Your task to perform on an android device: allow notifications from all sites in the chrome app Image 0: 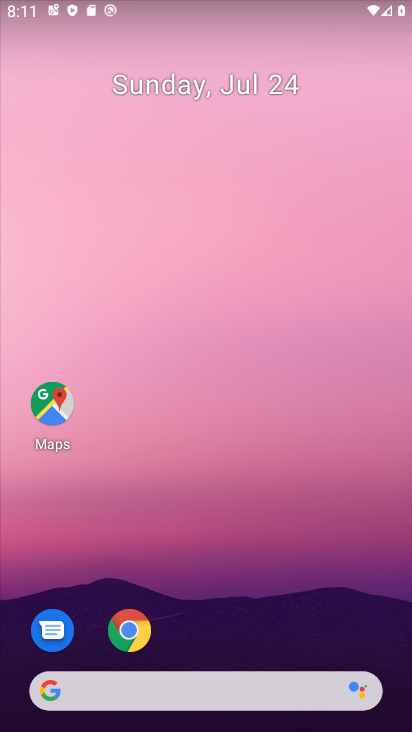
Step 0: click (127, 643)
Your task to perform on an android device: allow notifications from all sites in the chrome app Image 1: 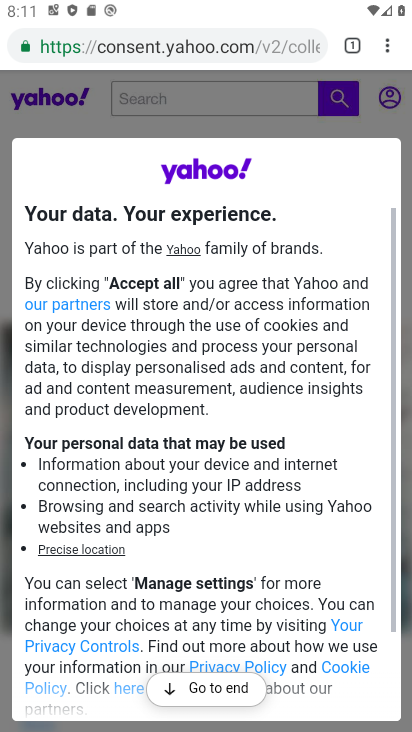
Step 1: click (389, 47)
Your task to perform on an android device: allow notifications from all sites in the chrome app Image 2: 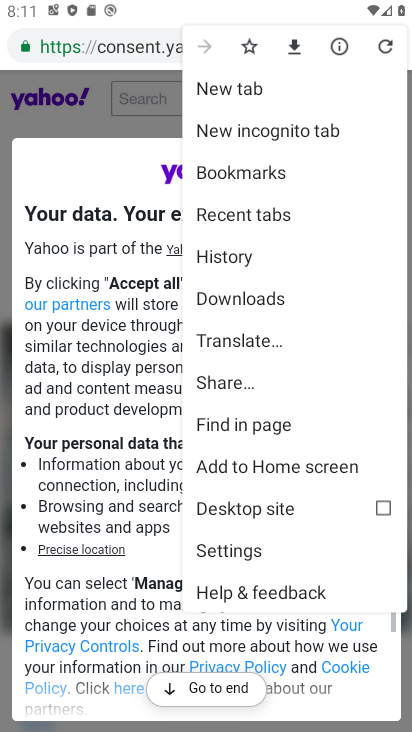
Step 2: click (237, 551)
Your task to perform on an android device: allow notifications from all sites in the chrome app Image 3: 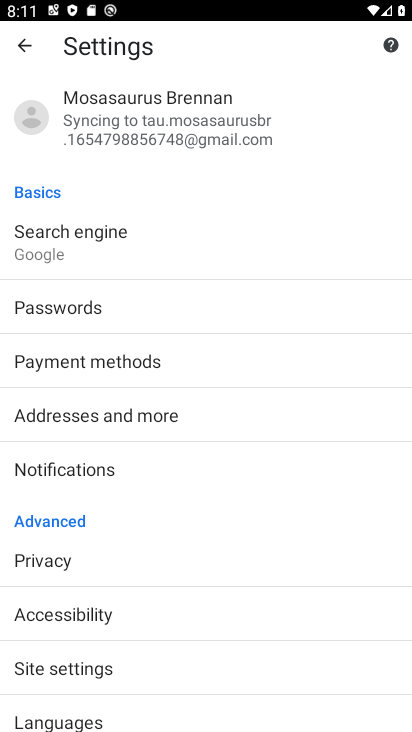
Step 3: click (105, 477)
Your task to perform on an android device: allow notifications from all sites in the chrome app Image 4: 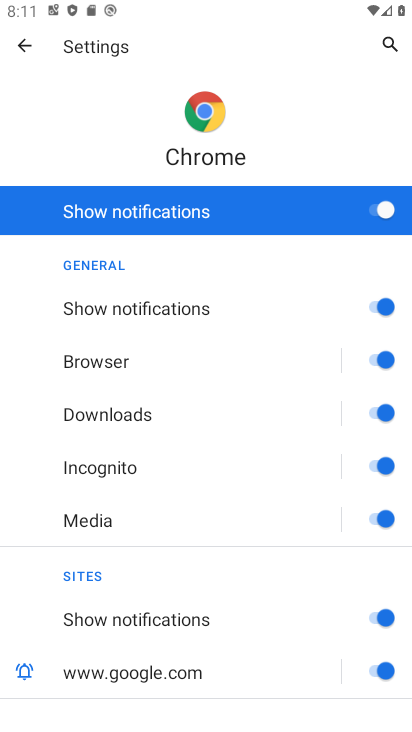
Step 4: click (32, 45)
Your task to perform on an android device: allow notifications from all sites in the chrome app Image 5: 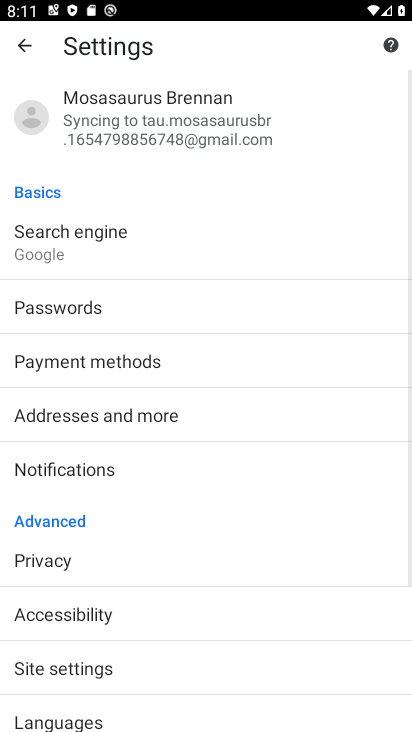
Step 5: drag from (155, 673) to (225, 330)
Your task to perform on an android device: allow notifications from all sites in the chrome app Image 6: 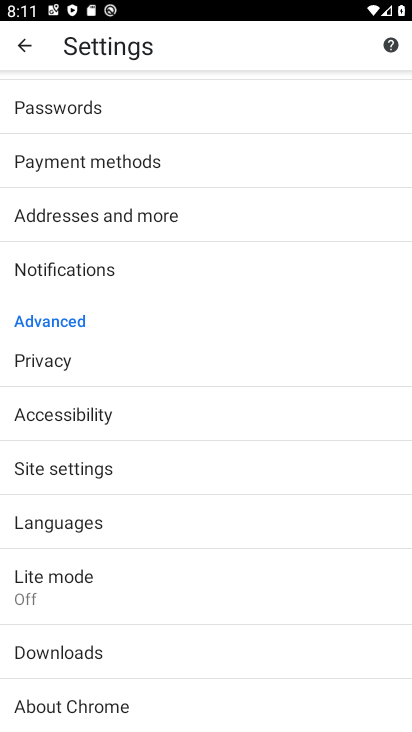
Step 6: click (112, 477)
Your task to perform on an android device: allow notifications from all sites in the chrome app Image 7: 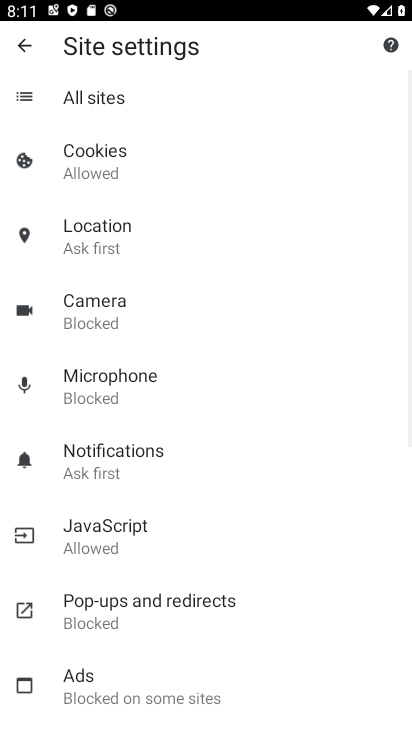
Step 7: click (114, 106)
Your task to perform on an android device: allow notifications from all sites in the chrome app Image 8: 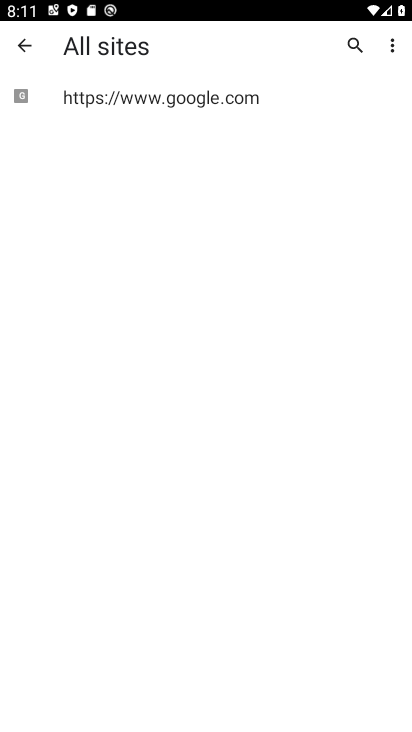
Step 8: click (262, 105)
Your task to perform on an android device: allow notifications from all sites in the chrome app Image 9: 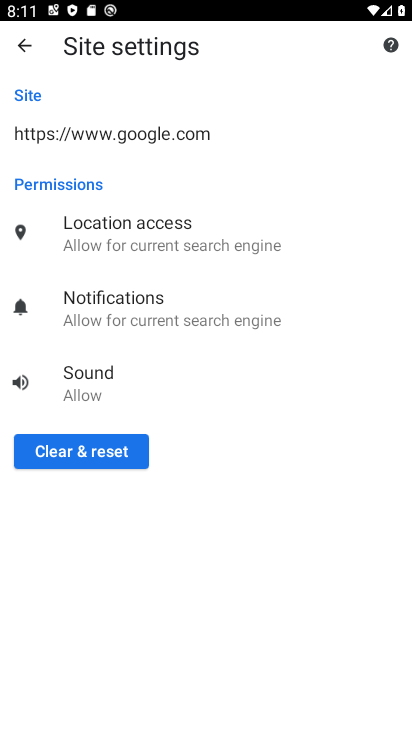
Step 9: click (92, 307)
Your task to perform on an android device: allow notifications from all sites in the chrome app Image 10: 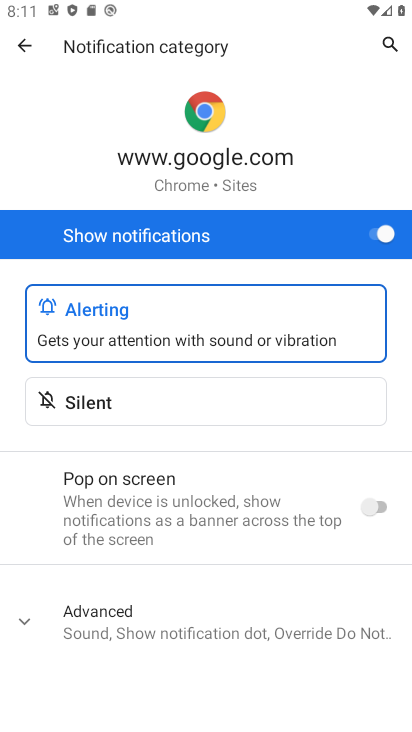
Step 10: task complete